Your task to perform on an android device: Open Youtube and go to the subscriptions tab Image 0: 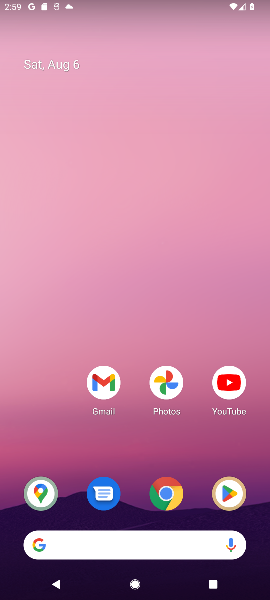
Step 0: drag from (141, 421) to (255, 404)
Your task to perform on an android device: Open Youtube and go to the subscriptions tab Image 1: 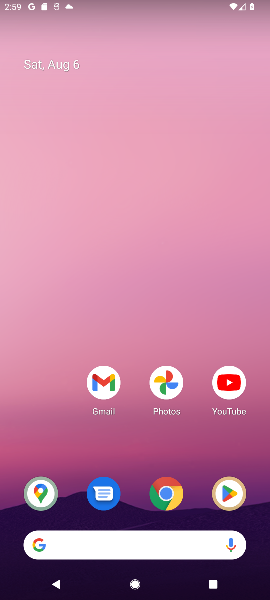
Step 1: drag from (172, 509) to (102, 186)
Your task to perform on an android device: Open Youtube and go to the subscriptions tab Image 2: 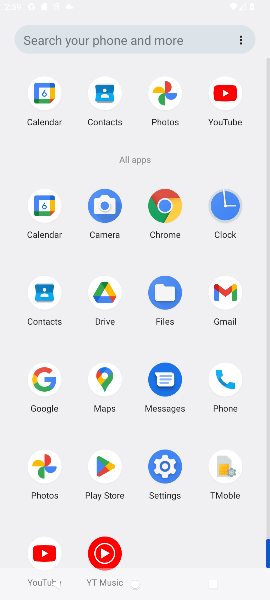
Step 2: drag from (97, 258) to (44, 33)
Your task to perform on an android device: Open Youtube and go to the subscriptions tab Image 3: 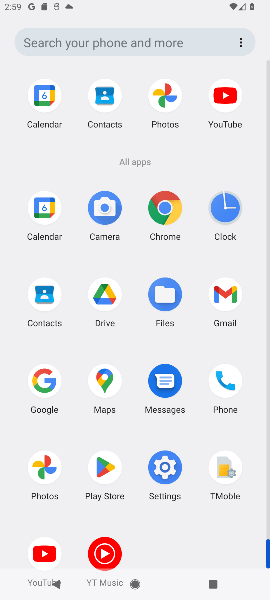
Step 3: drag from (153, 278) to (109, 20)
Your task to perform on an android device: Open Youtube and go to the subscriptions tab Image 4: 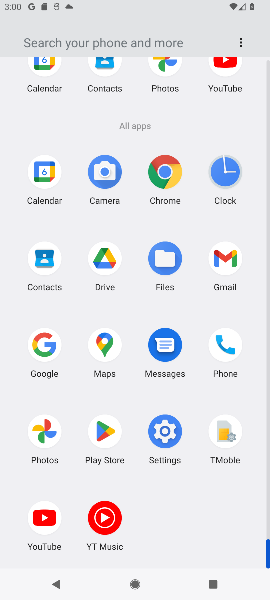
Step 4: click (219, 64)
Your task to perform on an android device: Open Youtube and go to the subscriptions tab Image 5: 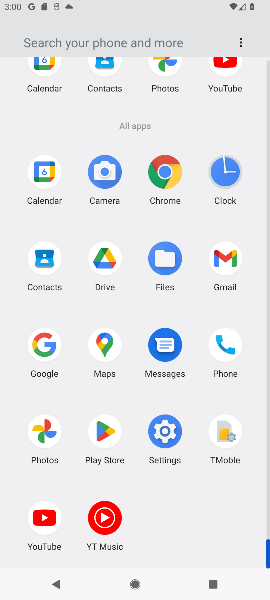
Step 5: click (220, 63)
Your task to perform on an android device: Open Youtube and go to the subscriptions tab Image 6: 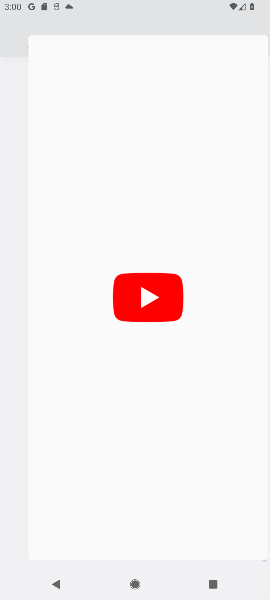
Step 6: click (222, 64)
Your task to perform on an android device: Open Youtube and go to the subscriptions tab Image 7: 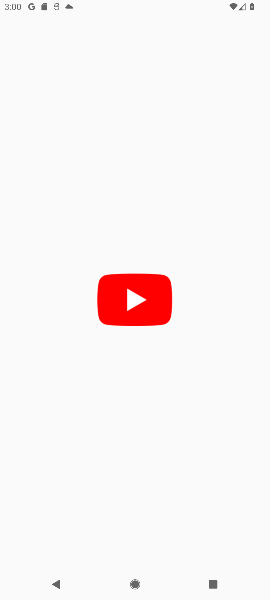
Step 7: click (223, 65)
Your task to perform on an android device: Open Youtube and go to the subscriptions tab Image 8: 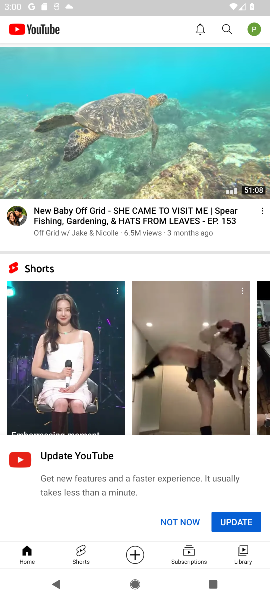
Step 8: task complete